Your task to perform on an android device: Search for vegetarian restaurants on Maps Image 0: 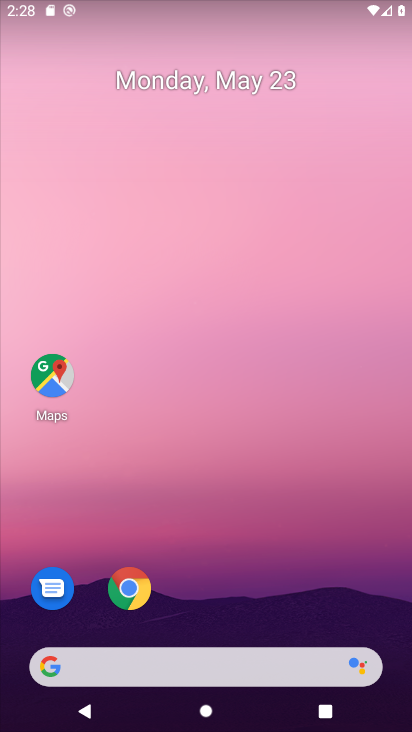
Step 0: drag from (196, 616) to (263, 145)
Your task to perform on an android device: Search for vegetarian restaurants on Maps Image 1: 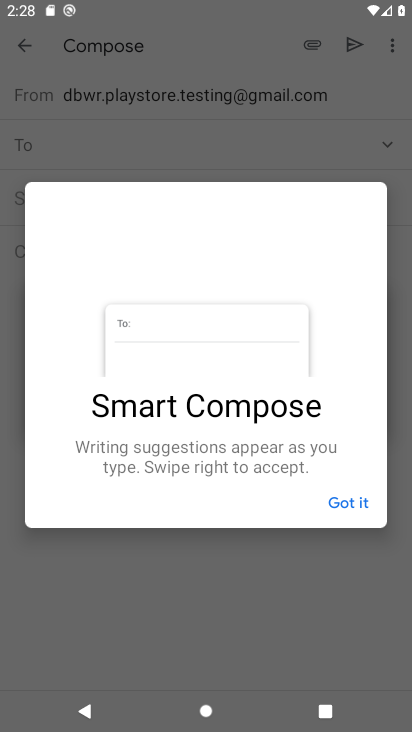
Step 1: press home button
Your task to perform on an android device: Search for vegetarian restaurants on Maps Image 2: 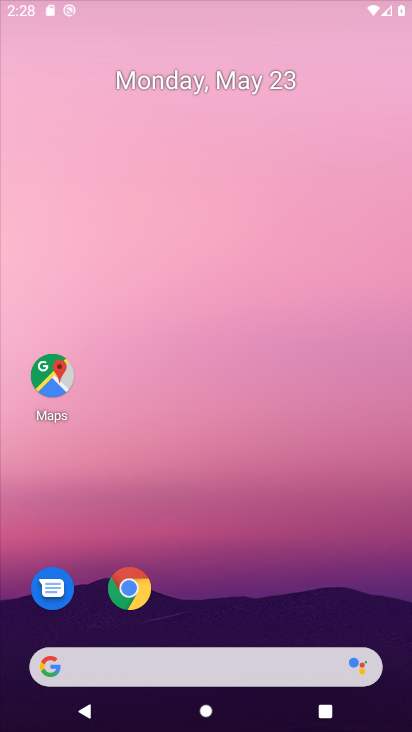
Step 2: drag from (217, 619) to (350, 75)
Your task to perform on an android device: Search for vegetarian restaurants on Maps Image 3: 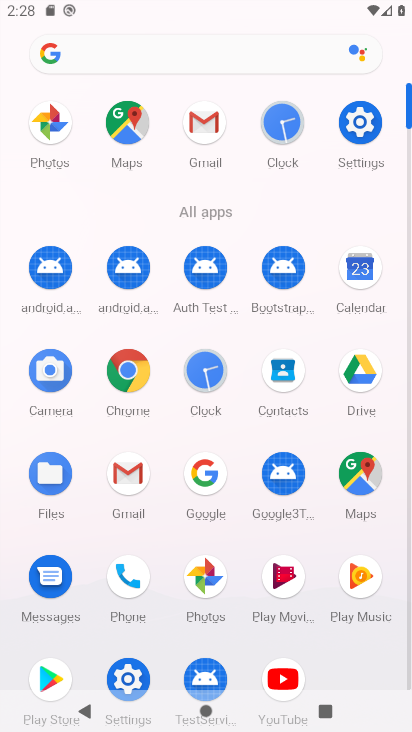
Step 3: click (359, 478)
Your task to perform on an android device: Search for vegetarian restaurants on Maps Image 4: 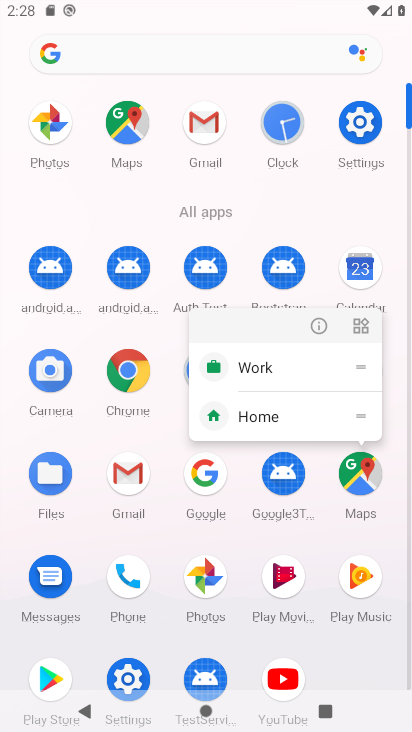
Step 4: click (319, 330)
Your task to perform on an android device: Search for vegetarian restaurants on Maps Image 5: 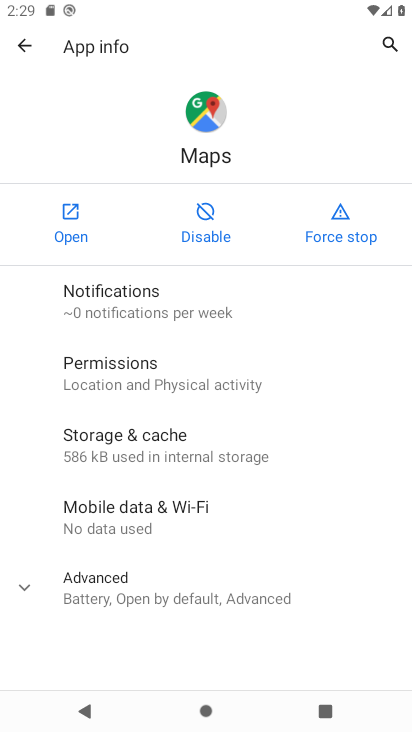
Step 5: click (59, 215)
Your task to perform on an android device: Search for vegetarian restaurants on Maps Image 6: 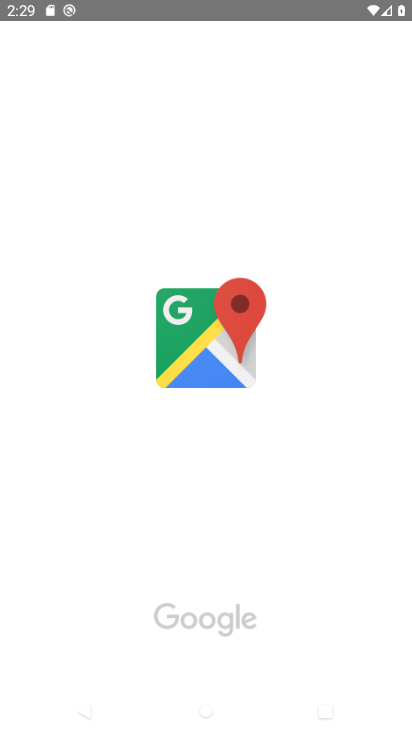
Step 6: drag from (263, 533) to (279, 316)
Your task to perform on an android device: Search for vegetarian restaurants on Maps Image 7: 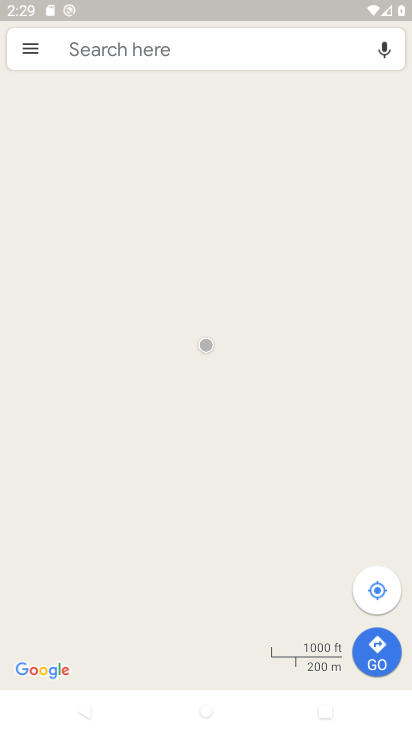
Step 7: click (144, 52)
Your task to perform on an android device: Search for vegetarian restaurants on Maps Image 8: 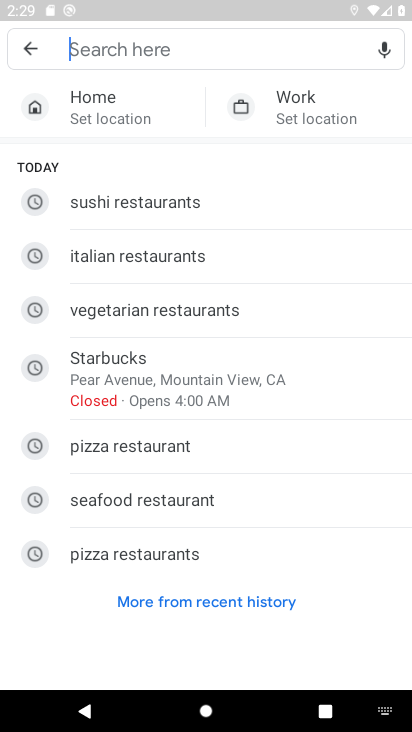
Step 8: click (153, 314)
Your task to perform on an android device: Search for vegetarian restaurants on Maps Image 9: 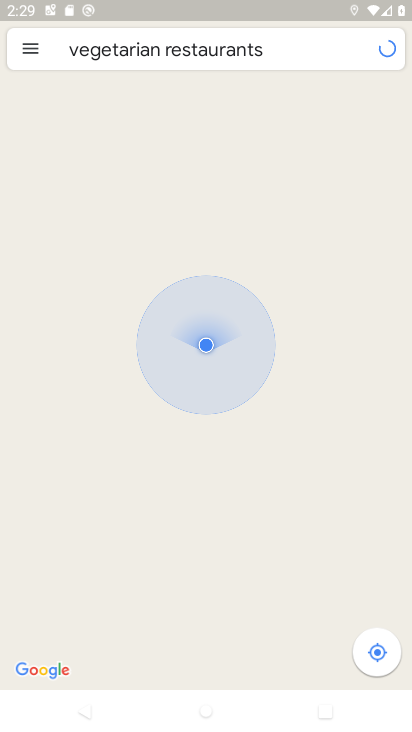
Step 9: task complete